Your task to perform on an android device: change notification settings in the gmail app Image 0: 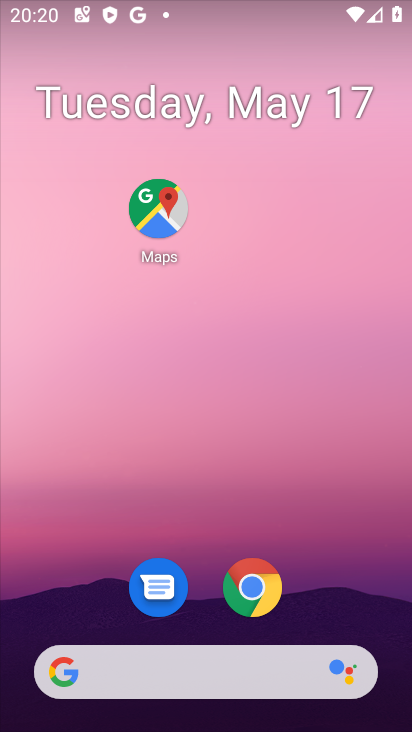
Step 0: drag from (48, 498) to (249, 179)
Your task to perform on an android device: change notification settings in the gmail app Image 1: 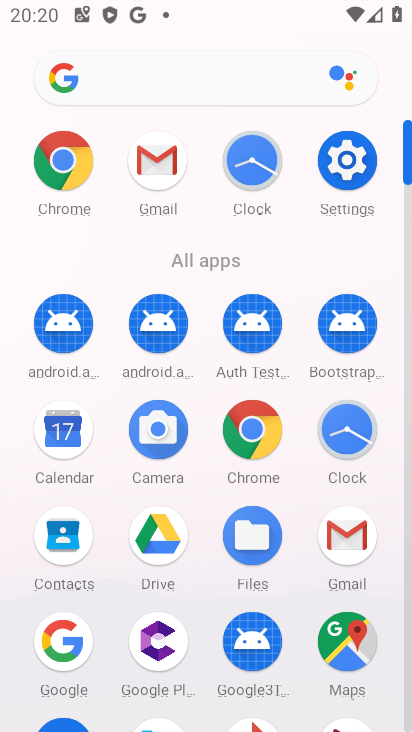
Step 1: click (165, 167)
Your task to perform on an android device: change notification settings in the gmail app Image 2: 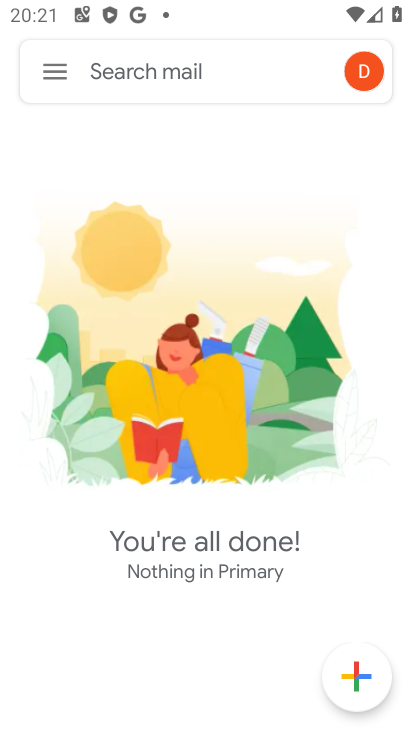
Step 2: click (67, 67)
Your task to perform on an android device: change notification settings in the gmail app Image 3: 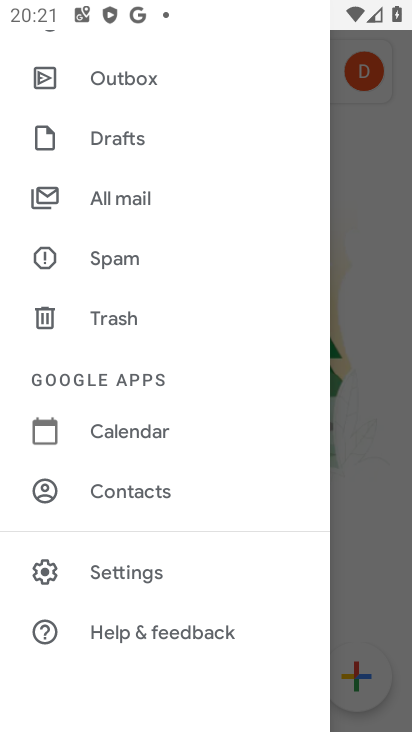
Step 3: click (121, 575)
Your task to perform on an android device: change notification settings in the gmail app Image 4: 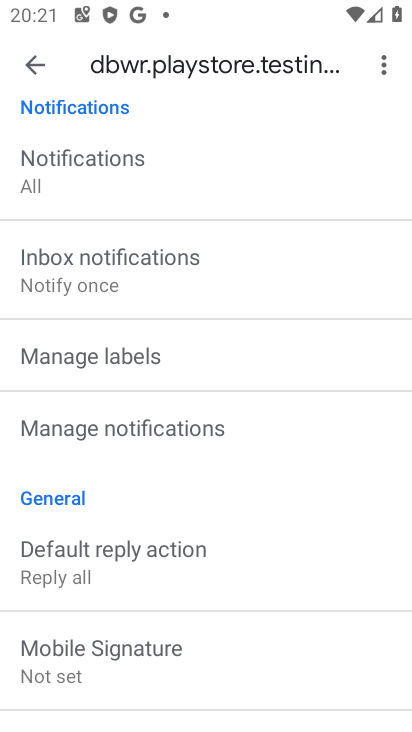
Step 4: click (141, 437)
Your task to perform on an android device: change notification settings in the gmail app Image 5: 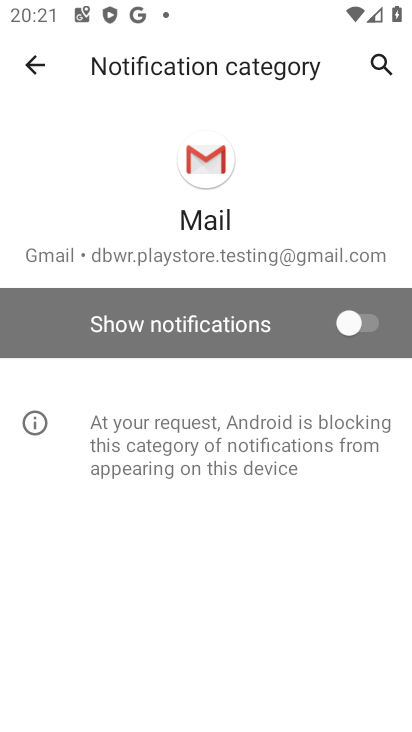
Step 5: click (342, 325)
Your task to perform on an android device: change notification settings in the gmail app Image 6: 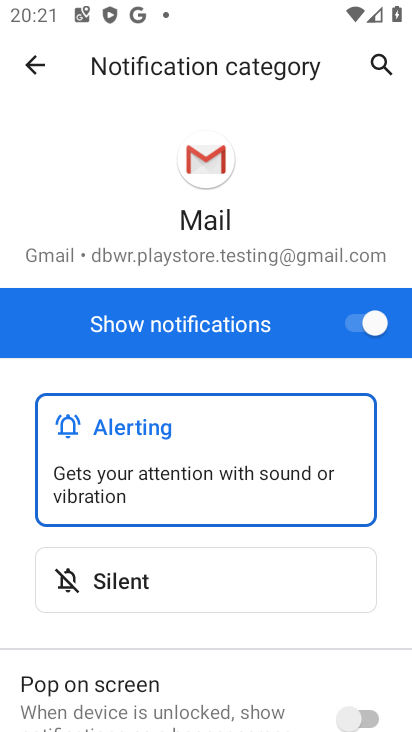
Step 6: task complete